Your task to perform on an android device: choose inbox layout in the gmail app Image 0: 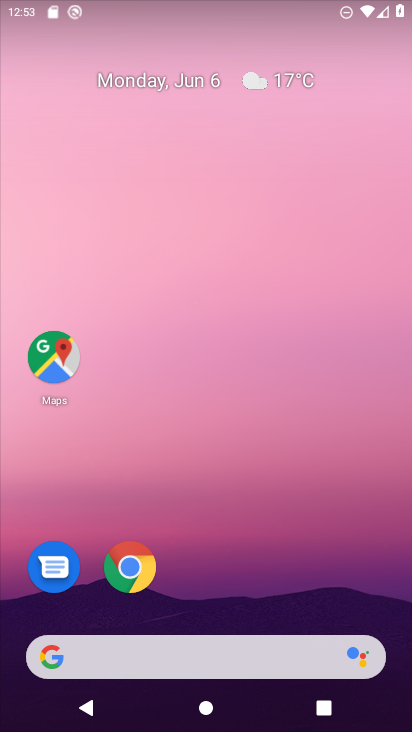
Step 0: drag from (230, 717) to (227, 113)
Your task to perform on an android device: choose inbox layout in the gmail app Image 1: 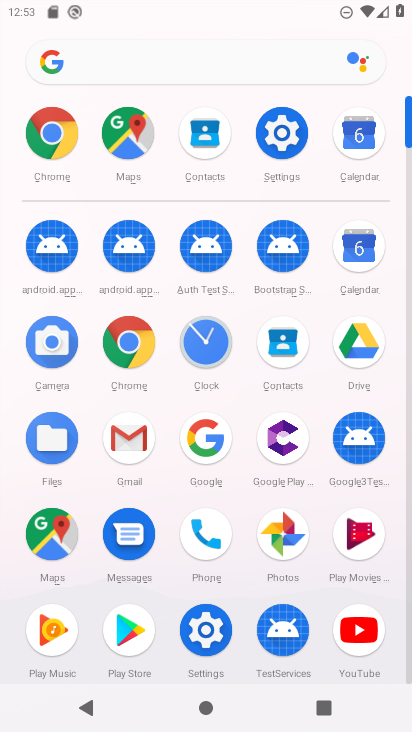
Step 1: click (139, 441)
Your task to perform on an android device: choose inbox layout in the gmail app Image 2: 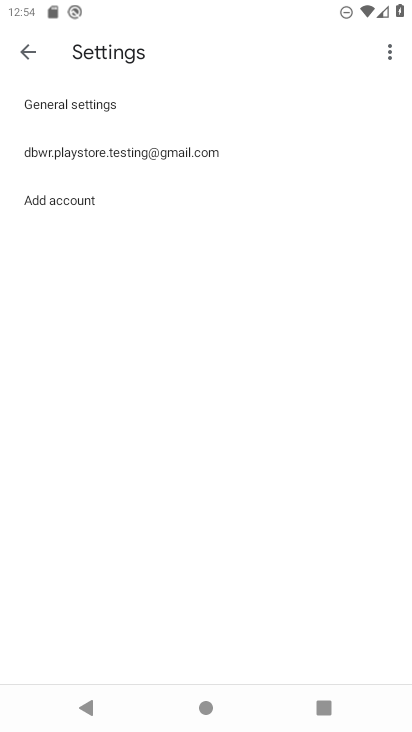
Step 2: click (117, 152)
Your task to perform on an android device: choose inbox layout in the gmail app Image 3: 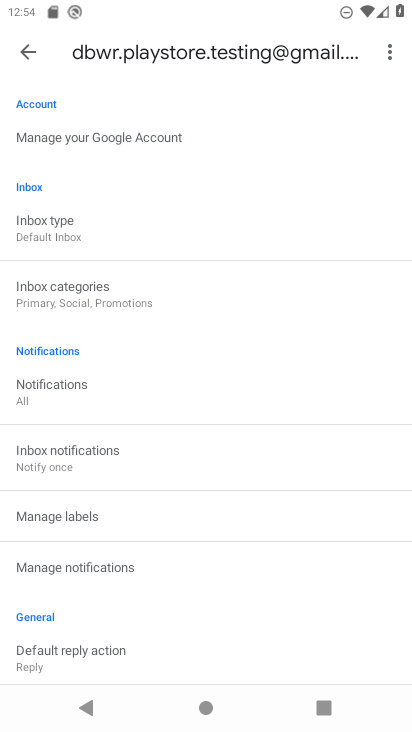
Step 3: click (55, 233)
Your task to perform on an android device: choose inbox layout in the gmail app Image 4: 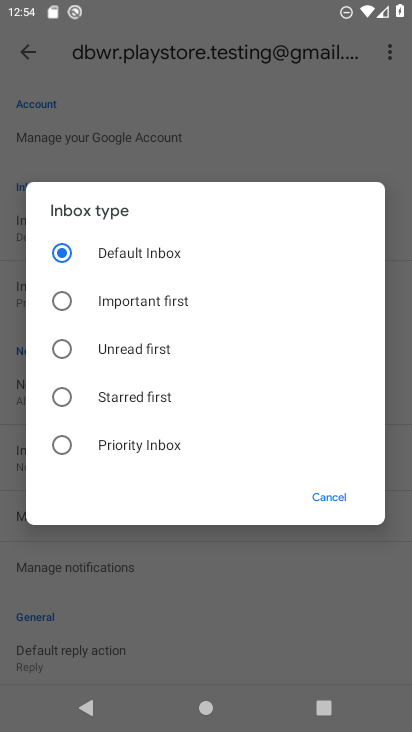
Step 4: click (66, 391)
Your task to perform on an android device: choose inbox layout in the gmail app Image 5: 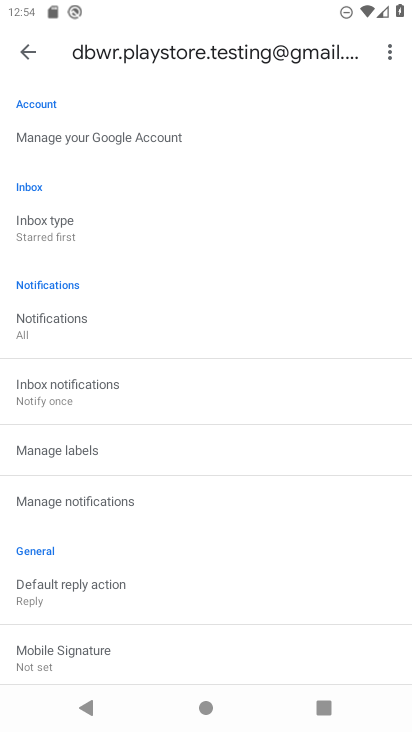
Step 5: task complete